Your task to perform on an android device: Open network settings Image 0: 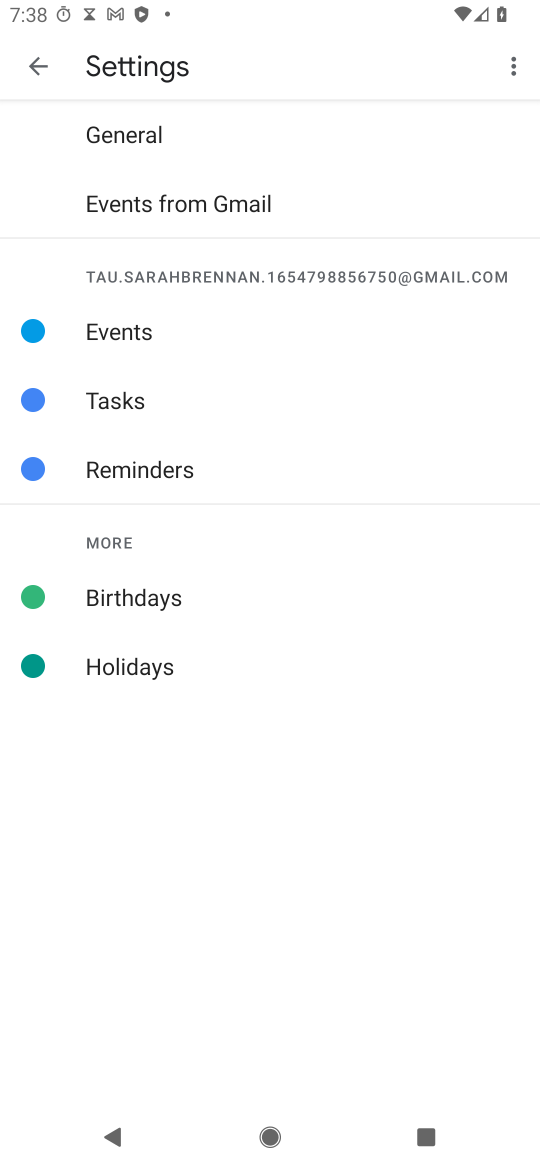
Step 0: press home button
Your task to perform on an android device: Open network settings Image 1: 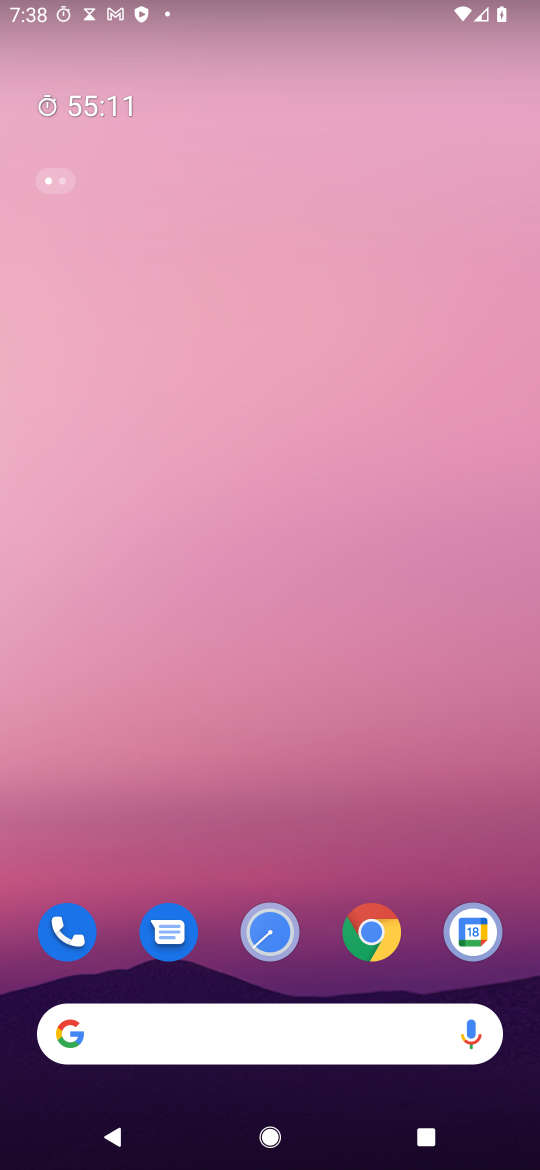
Step 1: drag from (397, 805) to (348, 145)
Your task to perform on an android device: Open network settings Image 2: 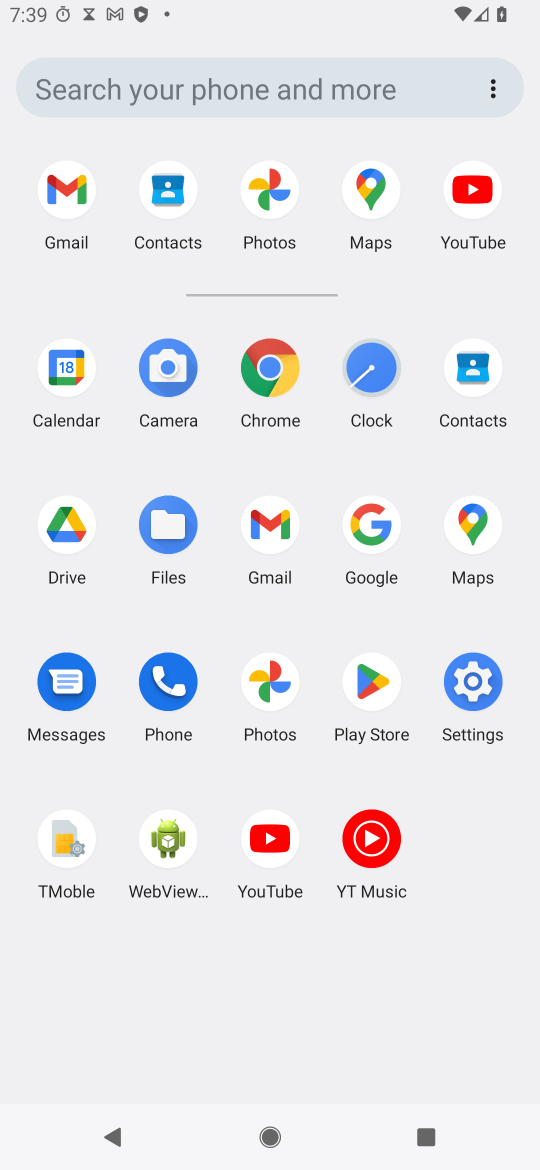
Step 2: click (456, 689)
Your task to perform on an android device: Open network settings Image 3: 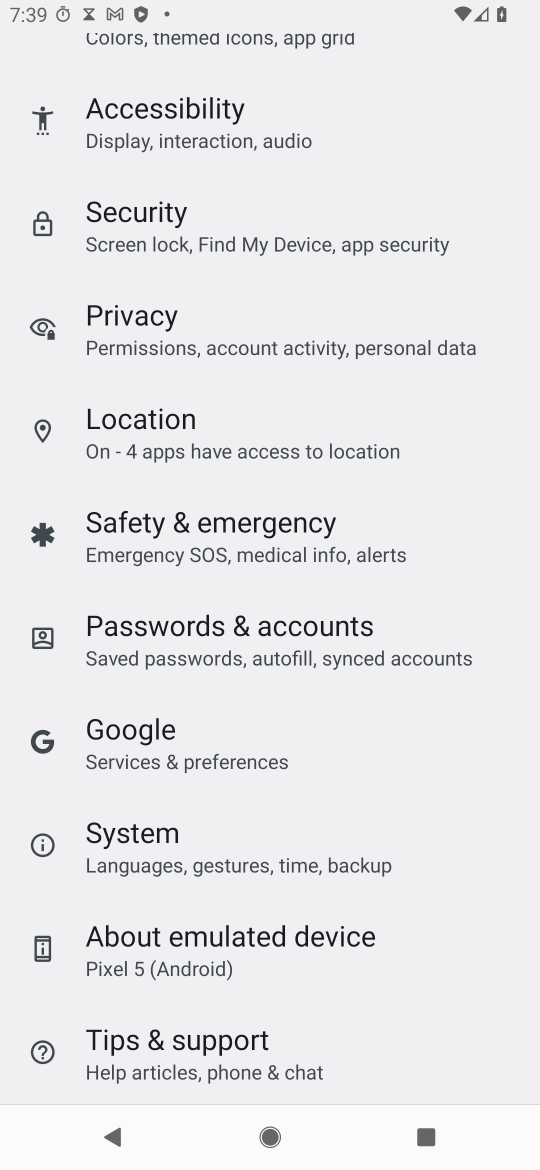
Step 3: drag from (217, 341) to (158, 1040)
Your task to perform on an android device: Open network settings Image 4: 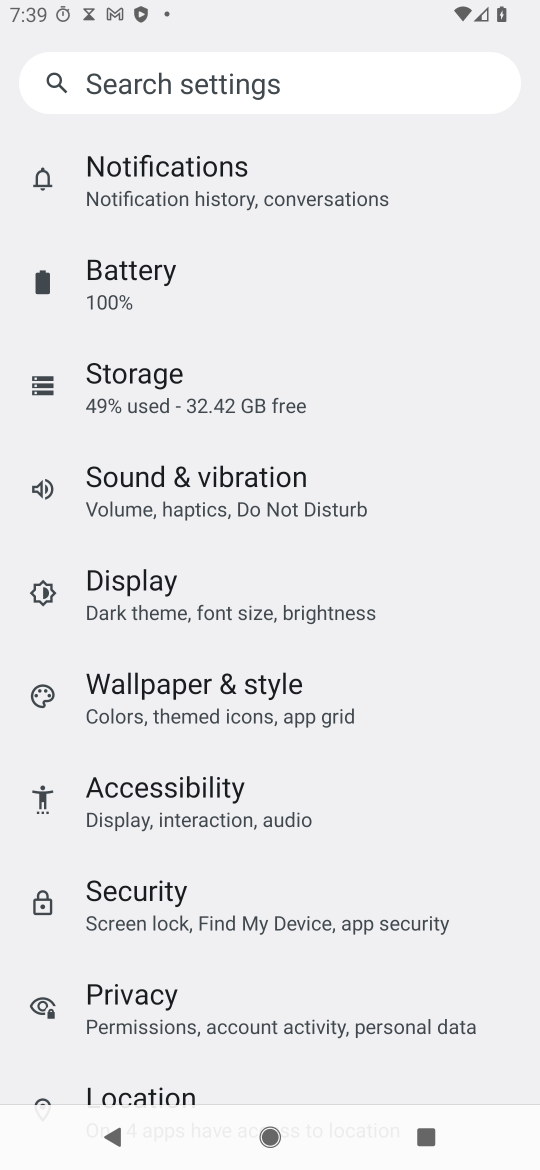
Step 4: drag from (250, 189) to (140, 897)
Your task to perform on an android device: Open network settings Image 5: 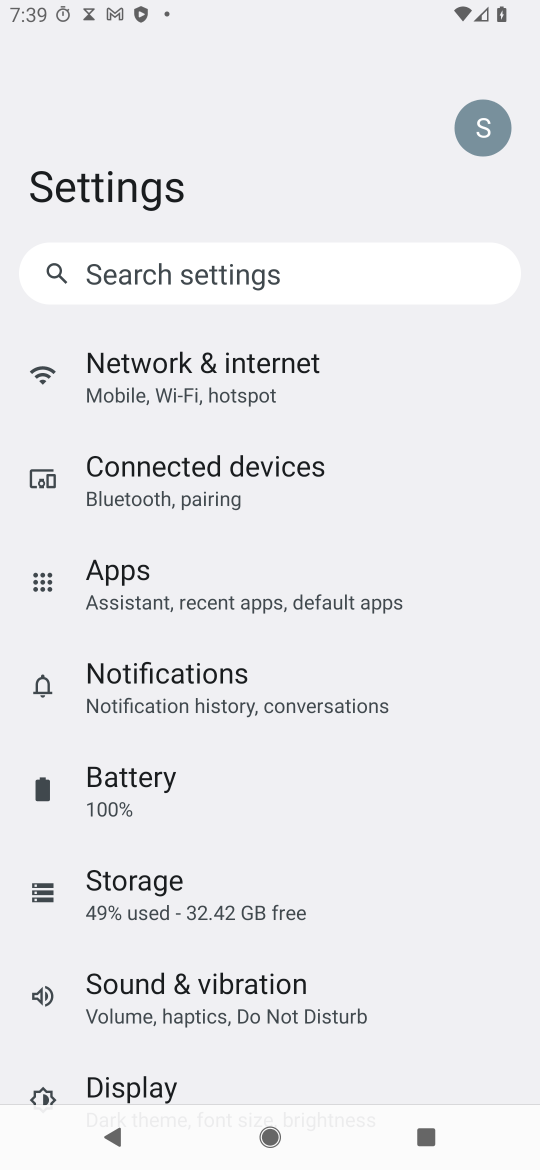
Step 5: click (199, 388)
Your task to perform on an android device: Open network settings Image 6: 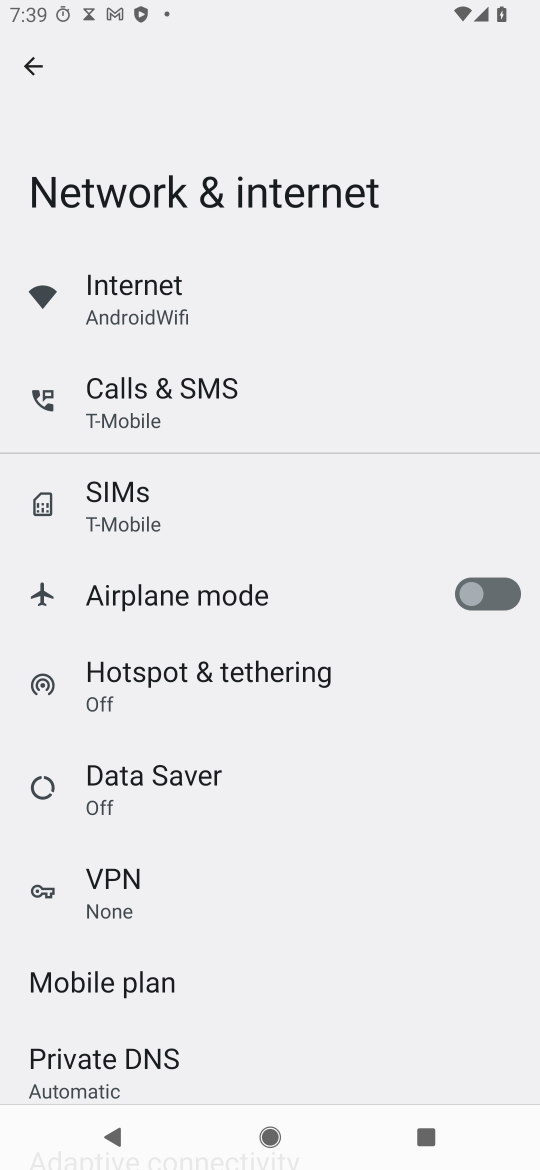
Step 6: task complete